Your task to perform on an android device: What is the news today? Image 0: 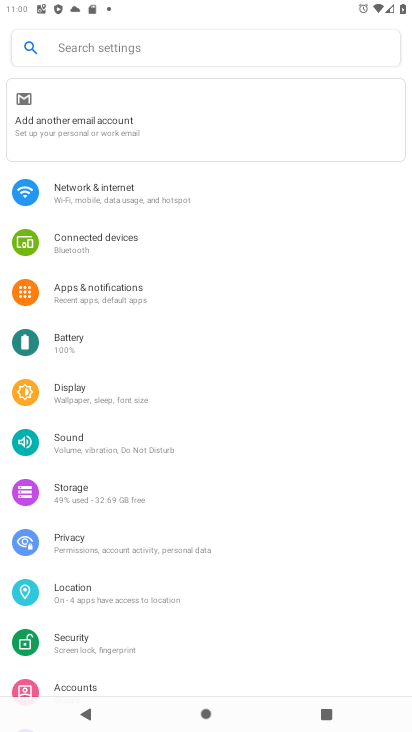
Step 0: press home button
Your task to perform on an android device: What is the news today? Image 1: 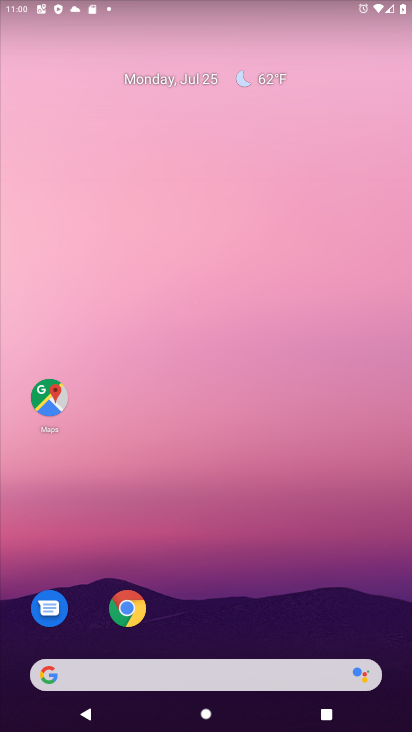
Step 1: drag from (207, 629) to (247, 37)
Your task to perform on an android device: What is the news today? Image 2: 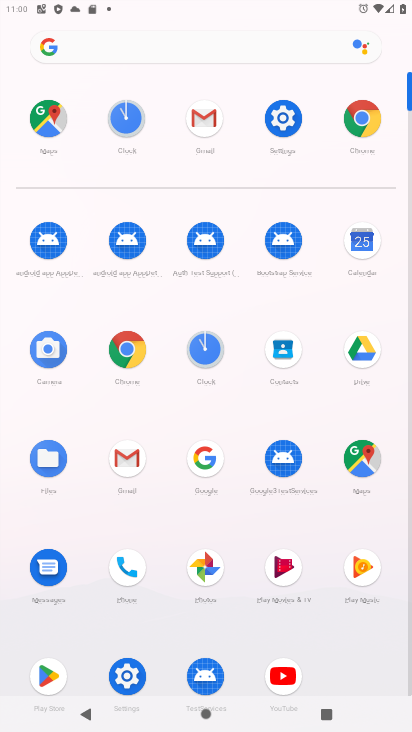
Step 2: click (164, 42)
Your task to perform on an android device: What is the news today? Image 3: 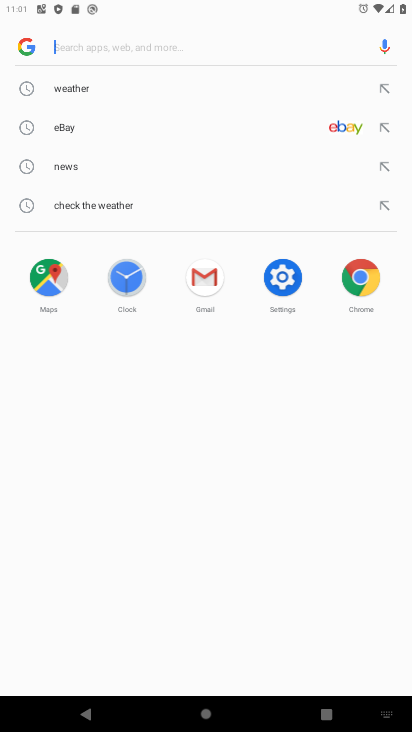
Step 3: type "news today ?"
Your task to perform on an android device: What is the news today? Image 4: 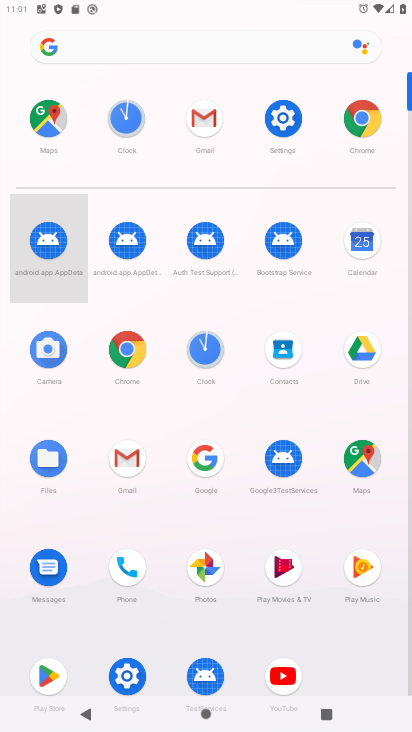
Step 4: click (199, 47)
Your task to perform on an android device: What is the news today? Image 5: 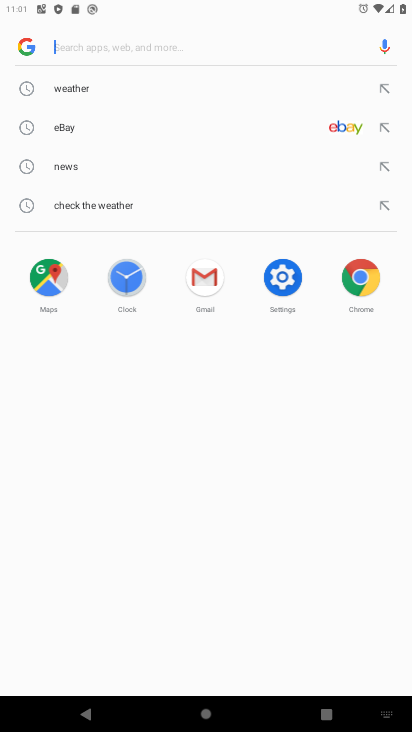
Step 5: type "news today ?"
Your task to perform on an android device: What is the news today? Image 6: 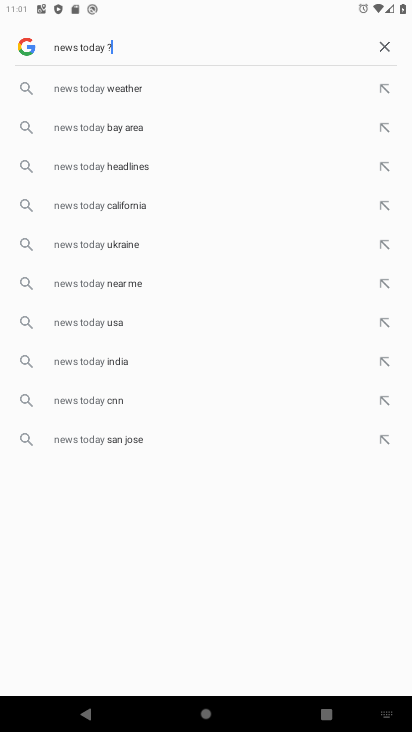
Step 6: click (64, 131)
Your task to perform on an android device: What is the news today? Image 7: 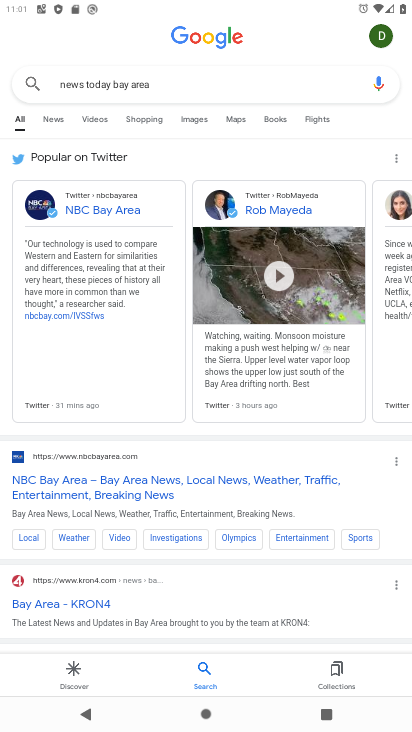
Step 7: task complete